Your task to perform on an android device: change notifications settings Image 0: 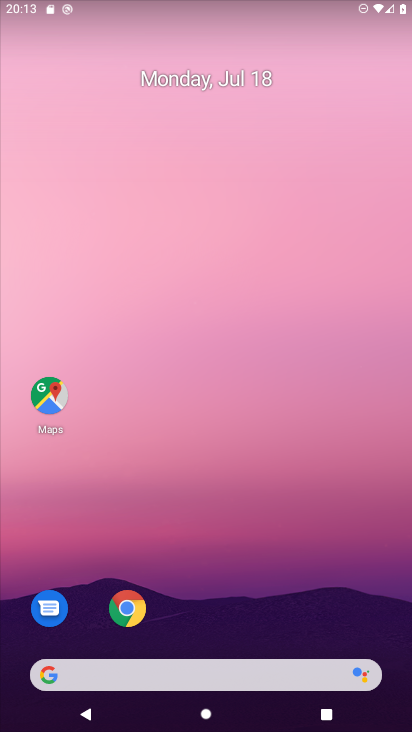
Step 0: drag from (225, 650) to (216, 111)
Your task to perform on an android device: change notifications settings Image 1: 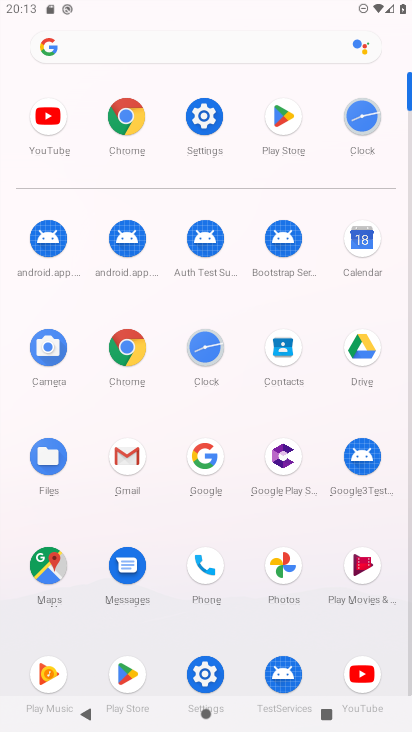
Step 1: click (209, 116)
Your task to perform on an android device: change notifications settings Image 2: 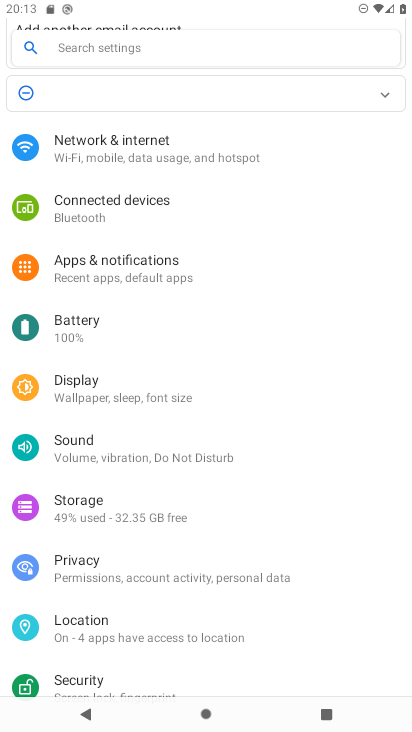
Step 2: click (147, 269)
Your task to perform on an android device: change notifications settings Image 3: 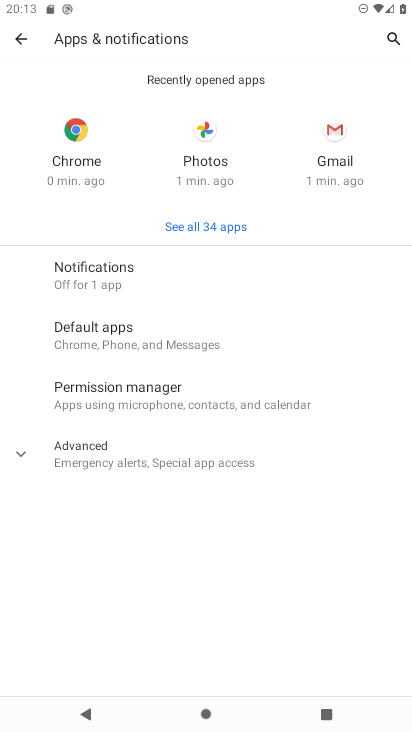
Step 3: click (114, 274)
Your task to perform on an android device: change notifications settings Image 4: 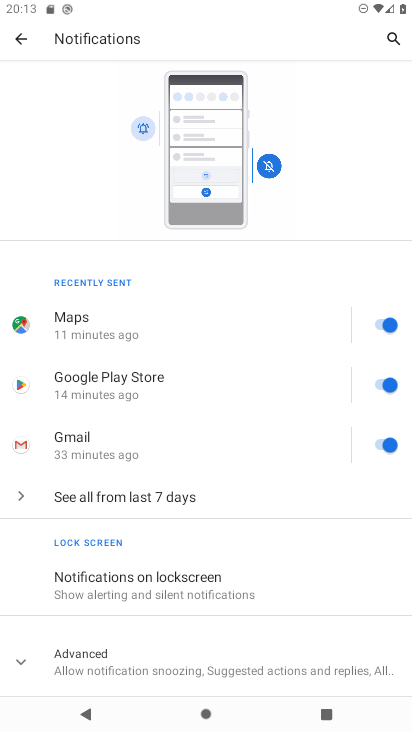
Step 4: drag from (175, 620) to (220, 102)
Your task to perform on an android device: change notifications settings Image 5: 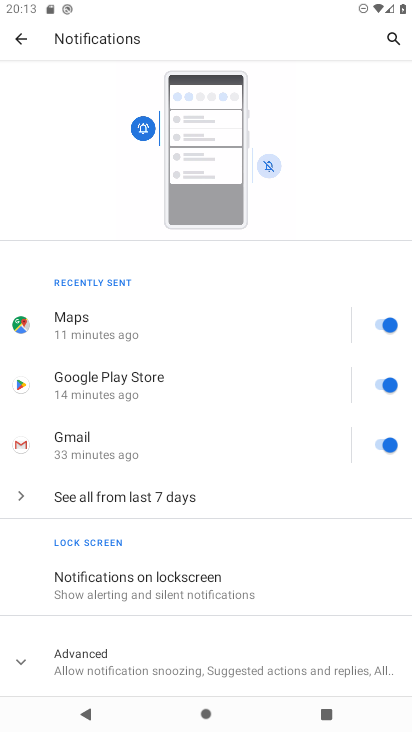
Step 5: click (56, 664)
Your task to perform on an android device: change notifications settings Image 6: 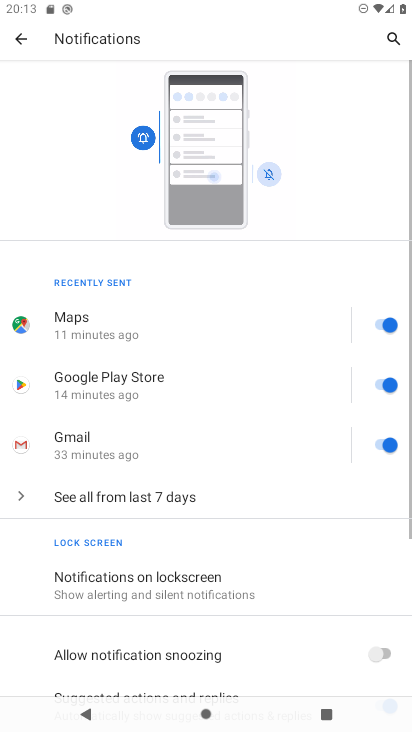
Step 6: drag from (250, 616) to (248, 178)
Your task to perform on an android device: change notifications settings Image 7: 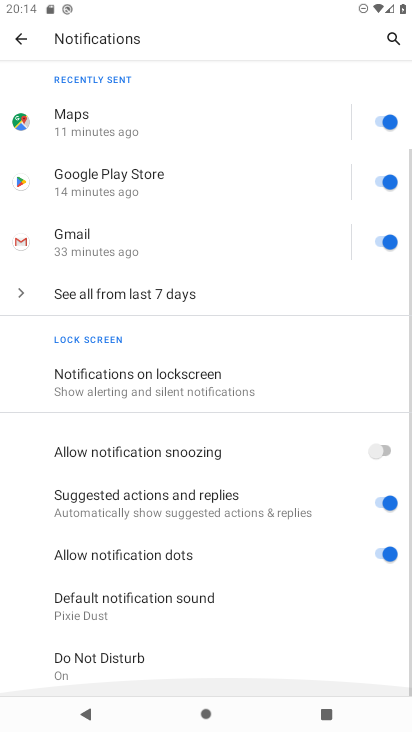
Step 7: click (383, 451)
Your task to perform on an android device: change notifications settings Image 8: 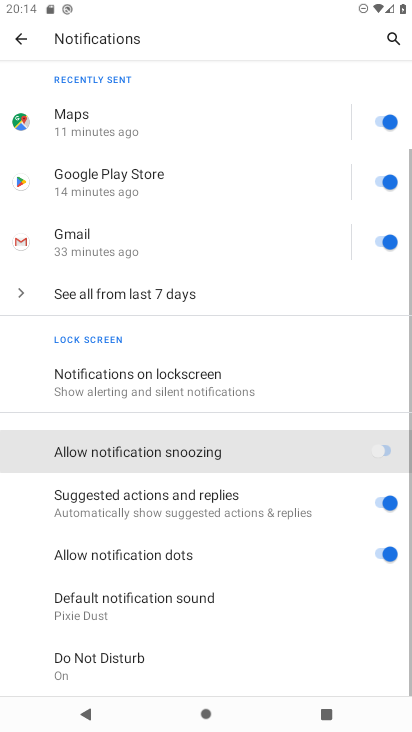
Step 8: click (384, 494)
Your task to perform on an android device: change notifications settings Image 9: 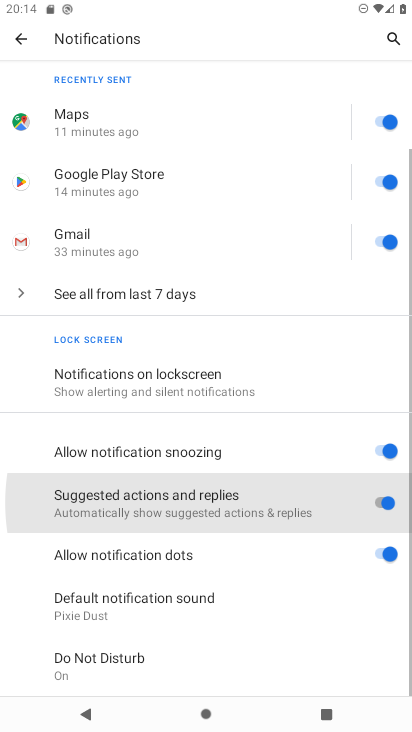
Step 9: click (391, 552)
Your task to perform on an android device: change notifications settings Image 10: 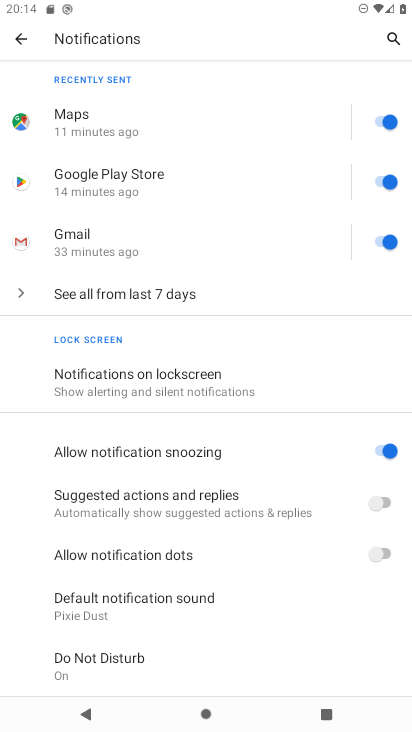
Step 10: click (391, 124)
Your task to perform on an android device: change notifications settings Image 11: 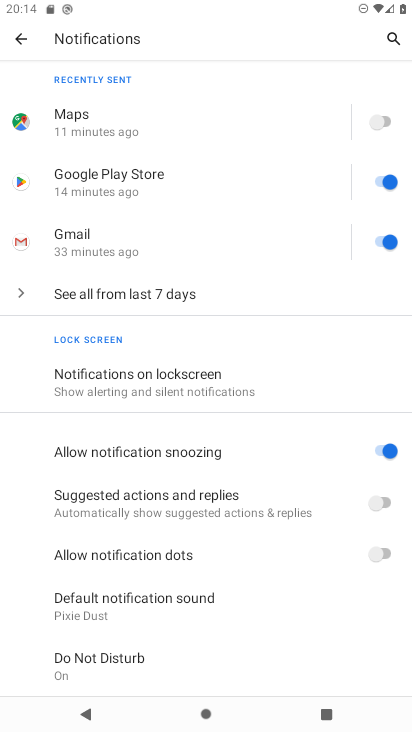
Step 11: click (380, 185)
Your task to perform on an android device: change notifications settings Image 12: 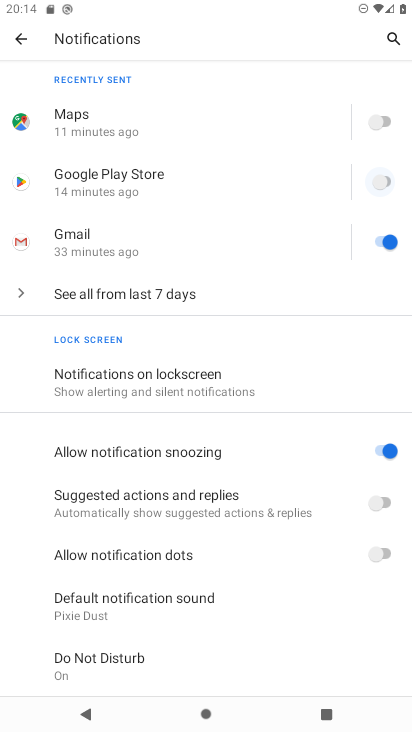
Step 12: click (389, 244)
Your task to perform on an android device: change notifications settings Image 13: 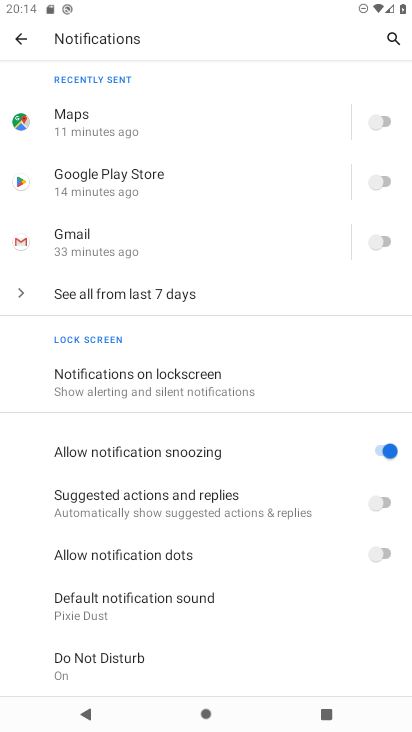
Step 13: task complete